Your task to perform on an android device: Open wifi settings Image 0: 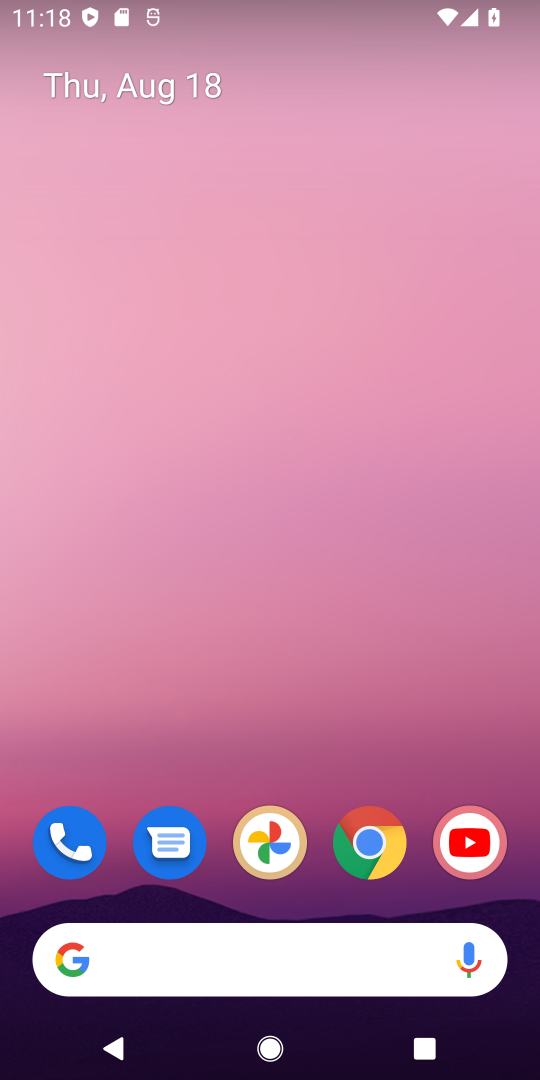
Step 0: drag from (294, 16) to (244, 1075)
Your task to perform on an android device: Open wifi settings Image 1: 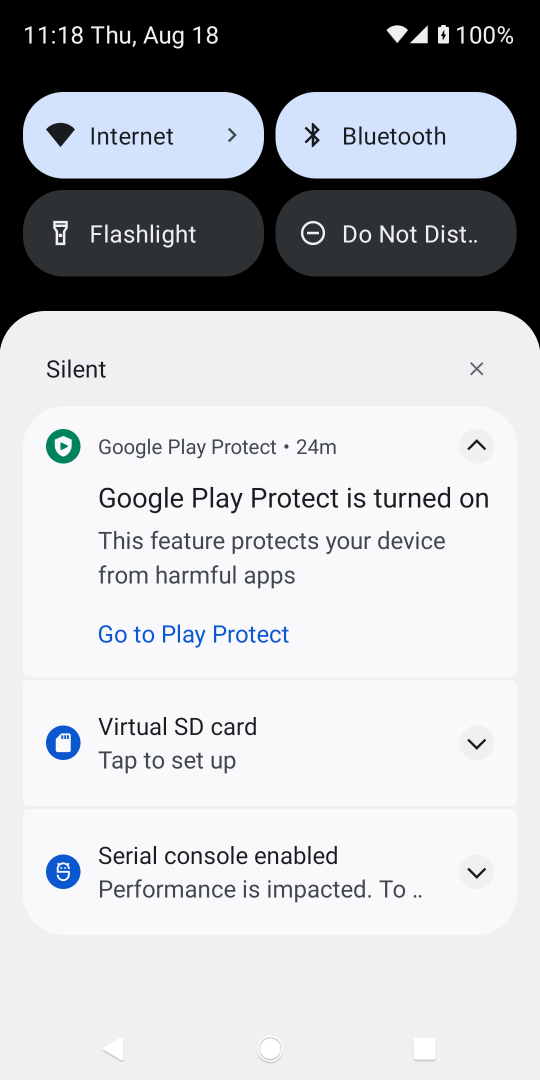
Step 1: click (236, 147)
Your task to perform on an android device: Open wifi settings Image 2: 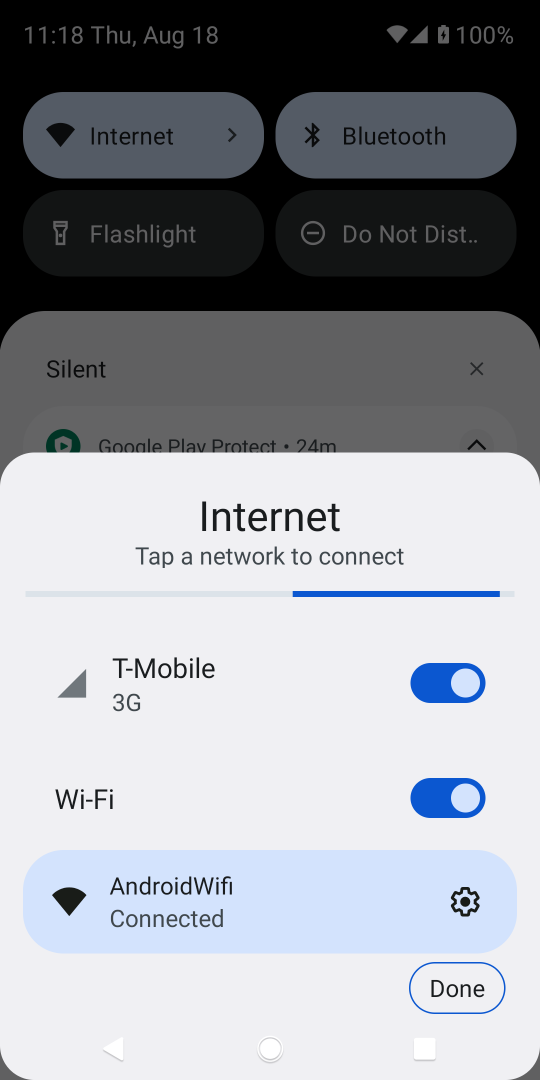
Step 2: click (463, 905)
Your task to perform on an android device: Open wifi settings Image 3: 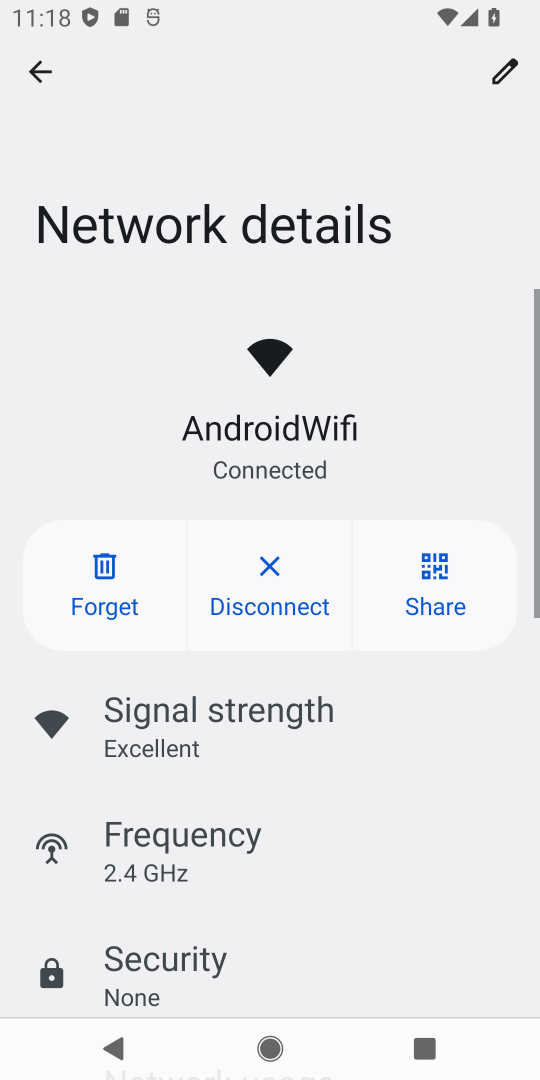
Step 3: task complete